Your task to perform on an android device: open device folders in google photos Image 0: 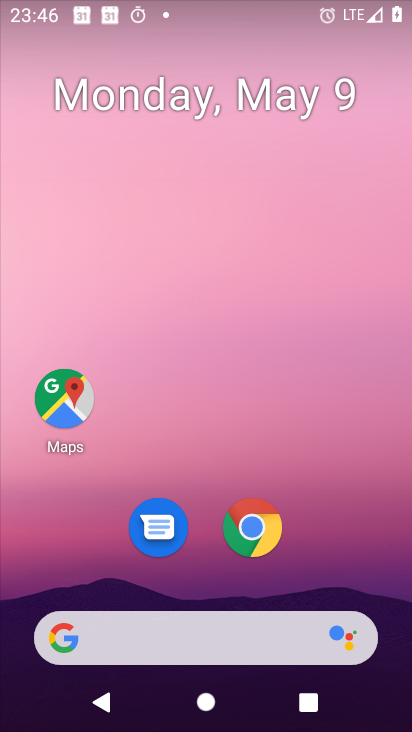
Step 0: drag from (218, 571) to (235, 23)
Your task to perform on an android device: open device folders in google photos Image 1: 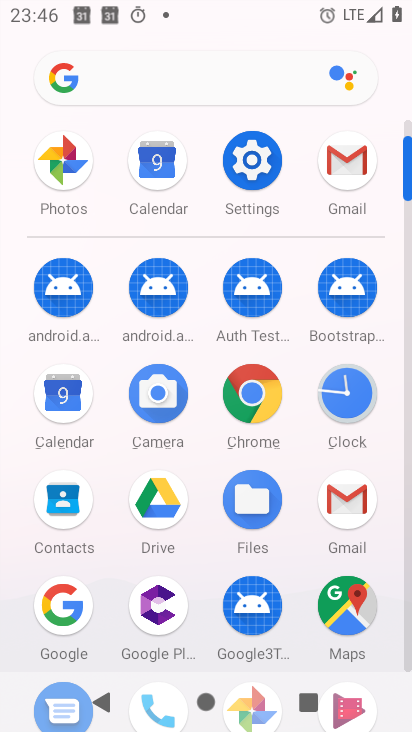
Step 1: click (67, 162)
Your task to perform on an android device: open device folders in google photos Image 2: 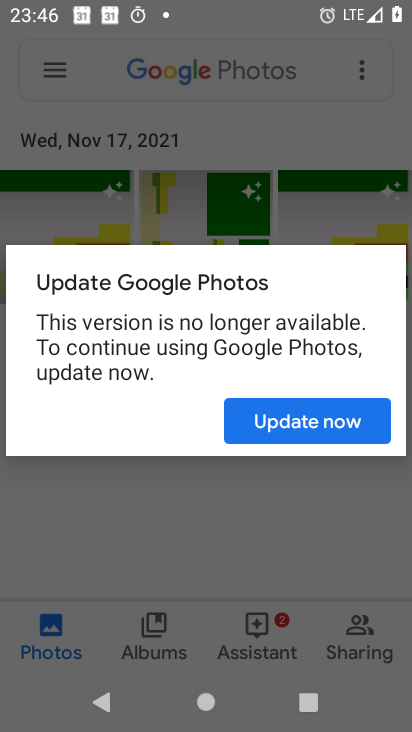
Step 2: click (320, 426)
Your task to perform on an android device: open device folders in google photos Image 3: 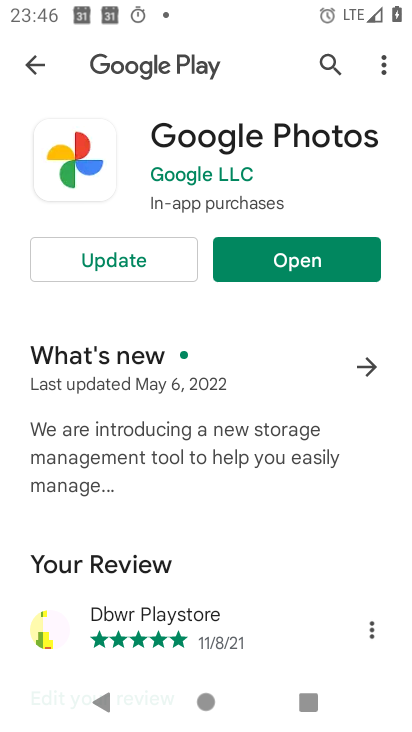
Step 3: click (277, 260)
Your task to perform on an android device: open device folders in google photos Image 4: 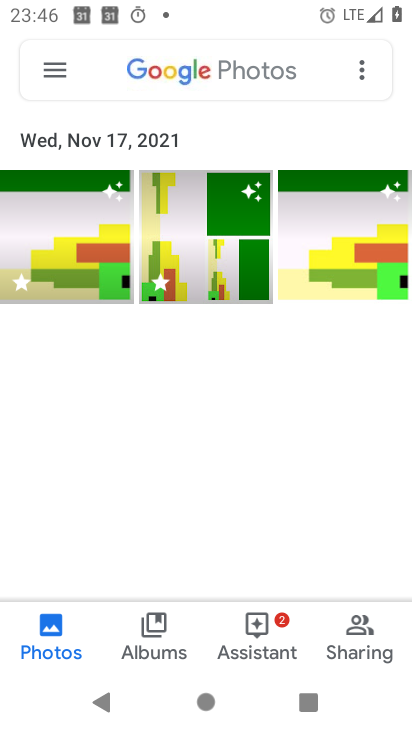
Step 4: click (54, 73)
Your task to perform on an android device: open device folders in google photos Image 5: 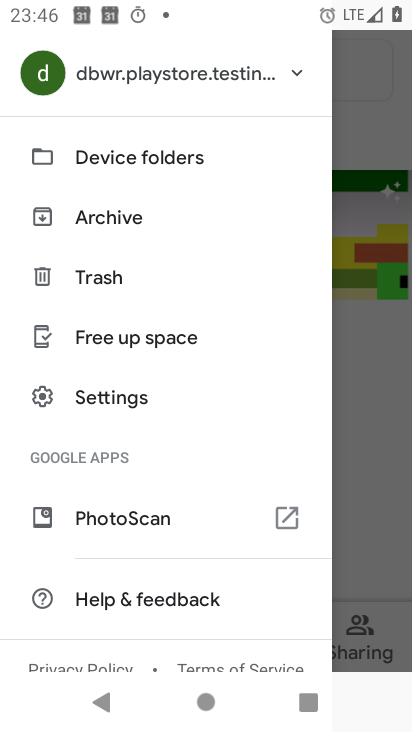
Step 5: click (101, 155)
Your task to perform on an android device: open device folders in google photos Image 6: 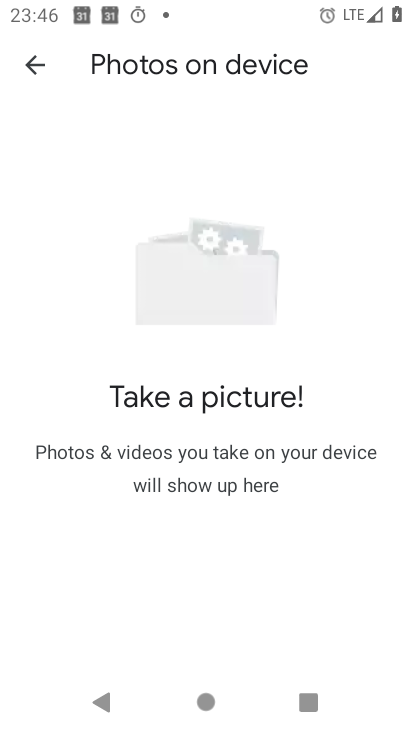
Step 6: task complete